Your task to perform on an android device: Go to Android settings Image 0: 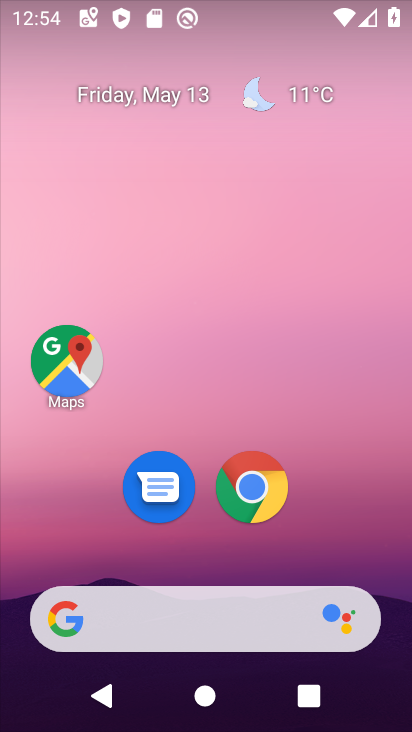
Step 0: drag from (352, 518) to (350, 140)
Your task to perform on an android device: Go to Android settings Image 1: 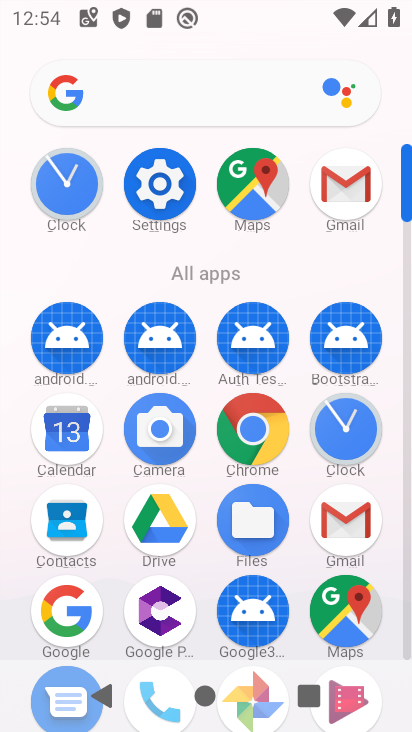
Step 1: click (160, 194)
Your task to perform on an android device: Go to Android settings Image 2: 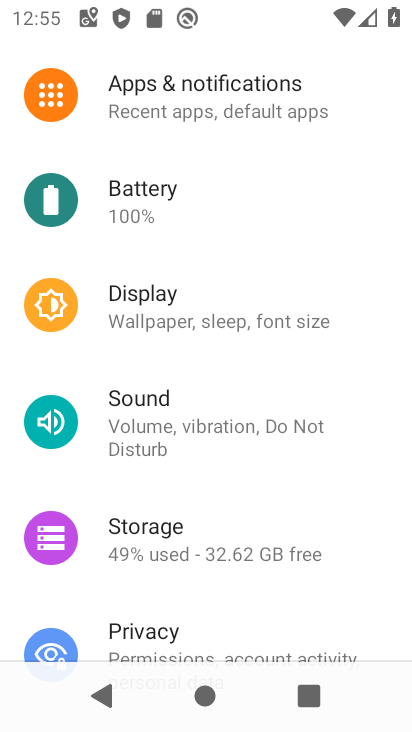
Step 2: drag from (282, 528) to (291, 123)
Your task to perform on an android device: Go to Android settings Image 3: 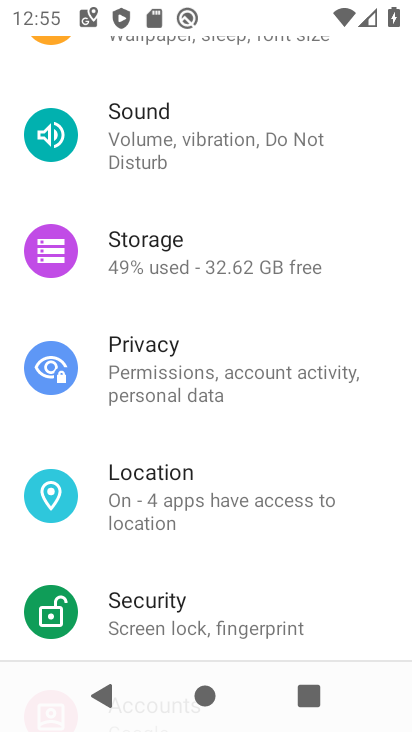
Step 3: drag from (242, 599) to (291, 140)
Your task to perform on an android device: Go to Android settings Image 4: 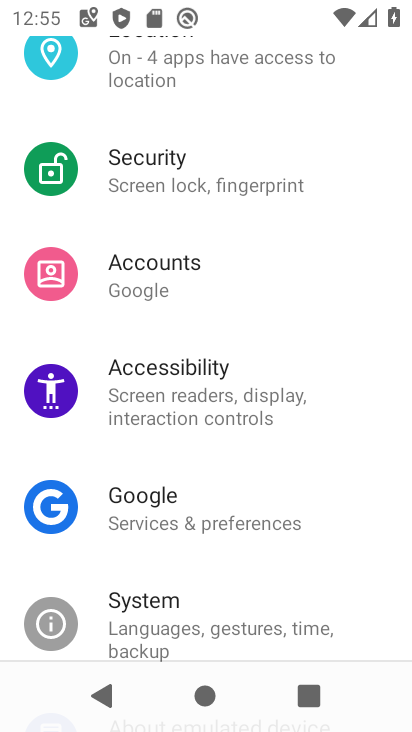
Step 4: drag from (263, 612) to (323, 167)
Your task to perform on an android device: Go to Android settings Image 5: 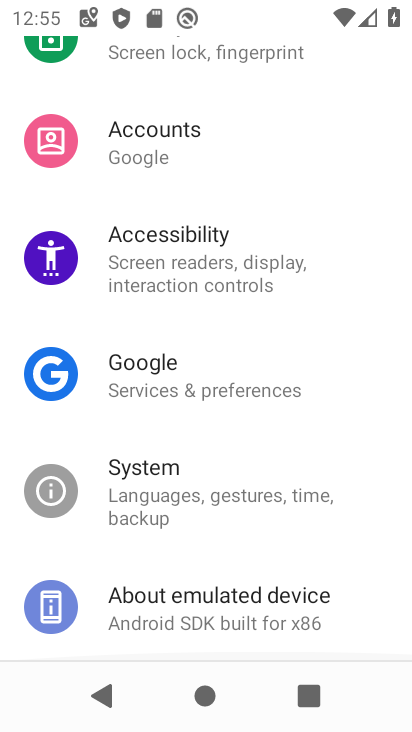
Step 5: click (231, 622)
Your task to perform on an android device: Go to Android settings Image 6: 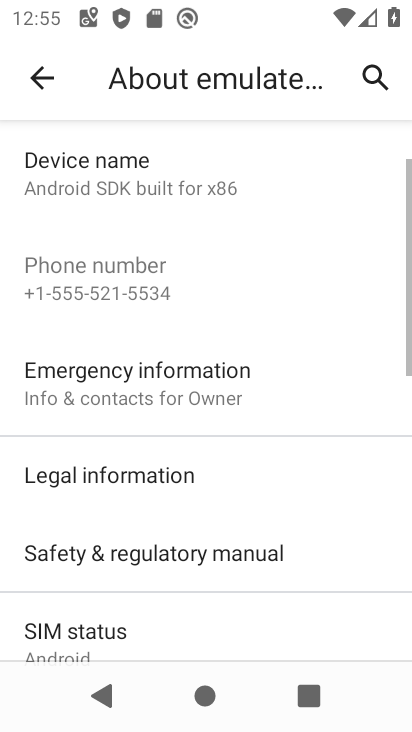
Step 6: drag from (237, 616) to (314, 181)
Your task to perform on an android device: Go to Android settings Image 7: 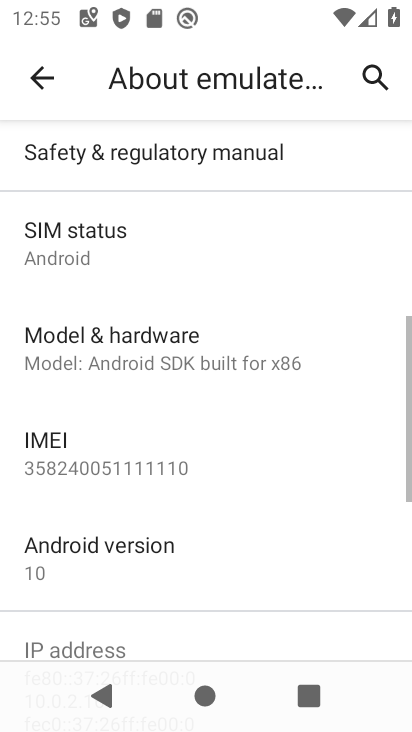
Step 7: click (204, 544)
Your task to perform on an android device: Go to Android settings Image 8: 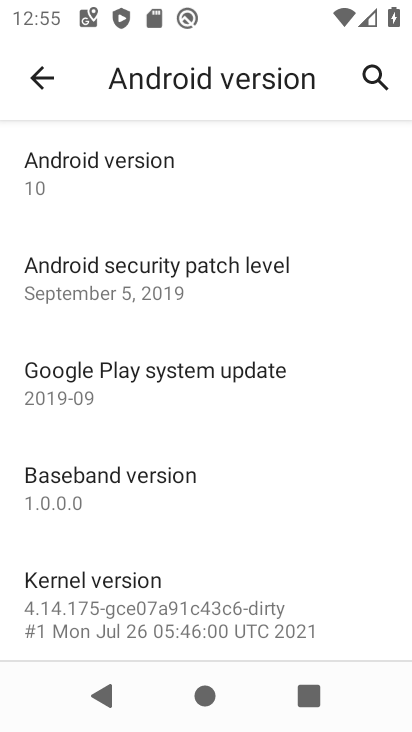
Step 8: task complete